Your task to perform on an android device: turn notification dots off Image 0: 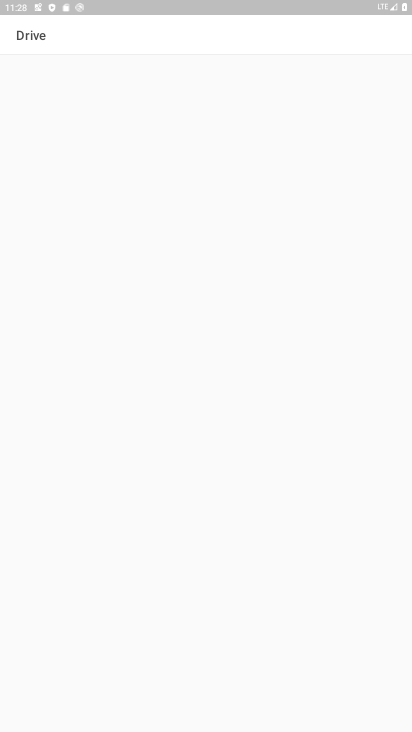
Step 0: press home button
Your task to perform on an android device: turn notification dots off Image 1: 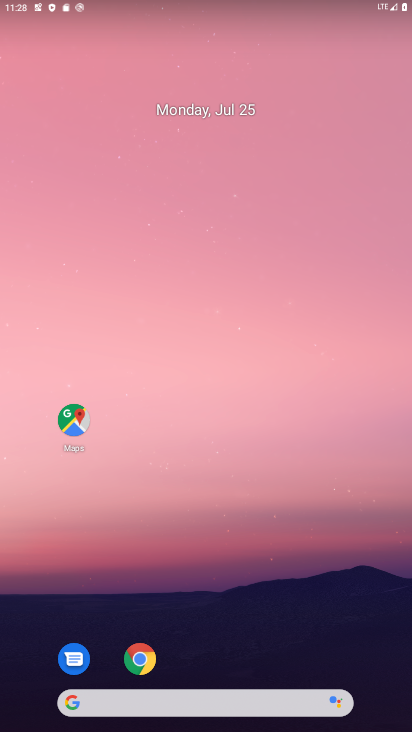
Step 1: drag from (225, 650) to (158, 156)
Your task to perform on an android device: turn notification dots off Image 2: 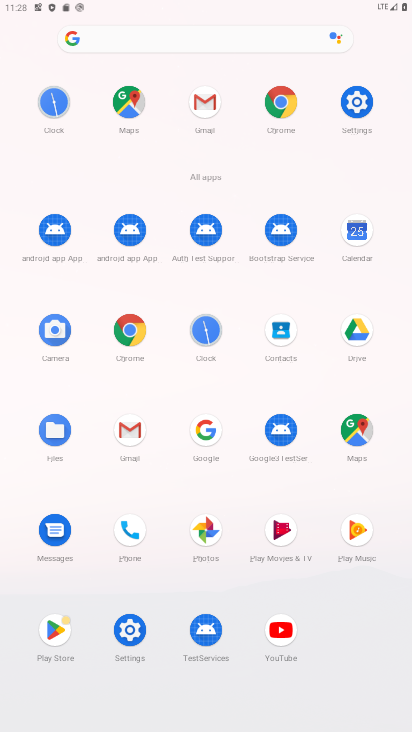
Step 2: click (359, 110)
Your task to perform on an android device: turn notification dots off Image 3: 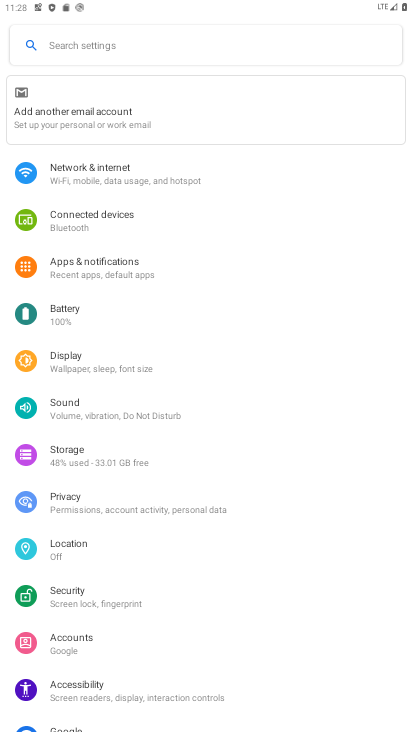
Step 3: click (163, 266)
Your task to perform on an android device: turn notification dots off Image 4: 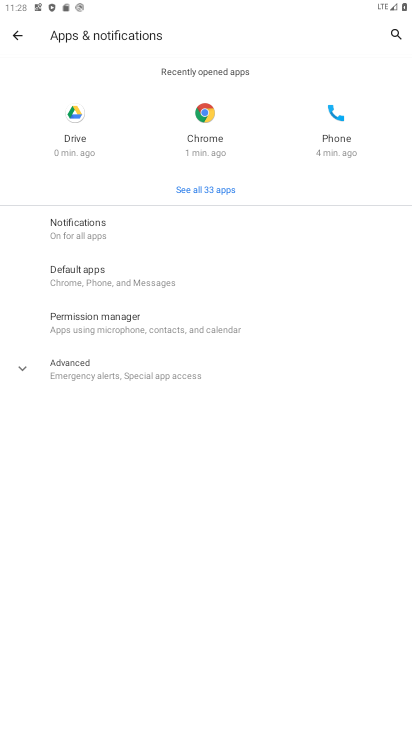
Step 4: click (128, 228)
Your task to perform on an android device: turn notification dots off Image 5: 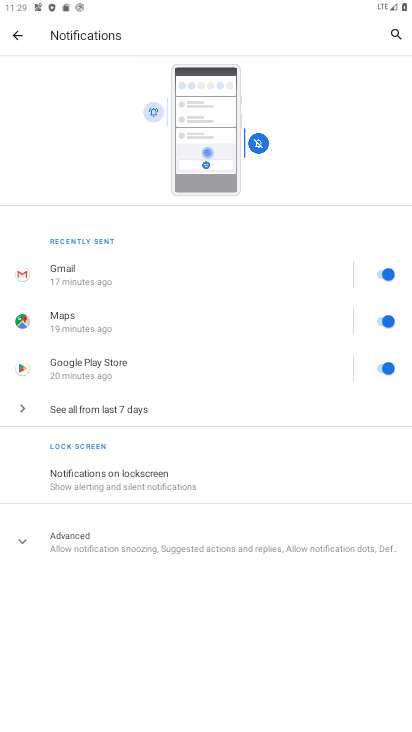
Step 5: click (177, 542)
Your task to perform on an android device: turn notification dots off Image 6: 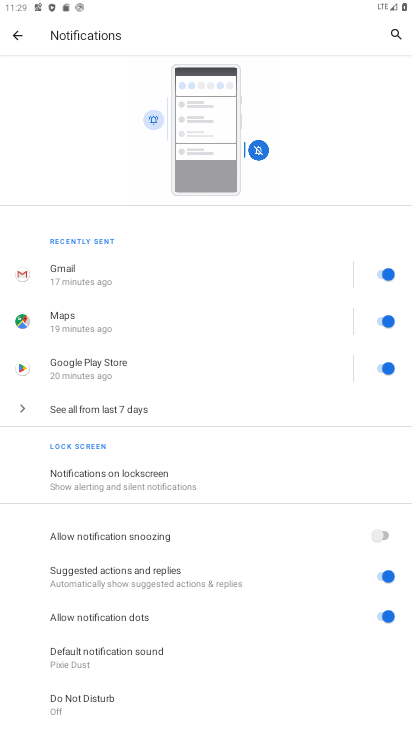
Step 6: drag from (235, 597) to (199, 285)
Your task to perform on an android device: turn notification dots off Image 7: 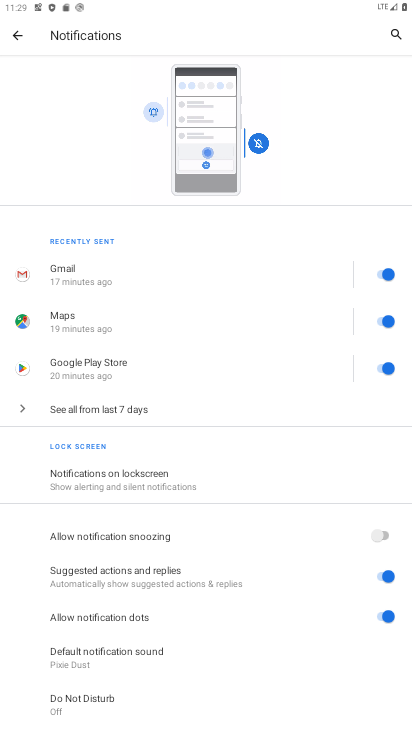
Step 7: click (395, 619)
Your task to perform on an android device: turn notification dots off Image 8: 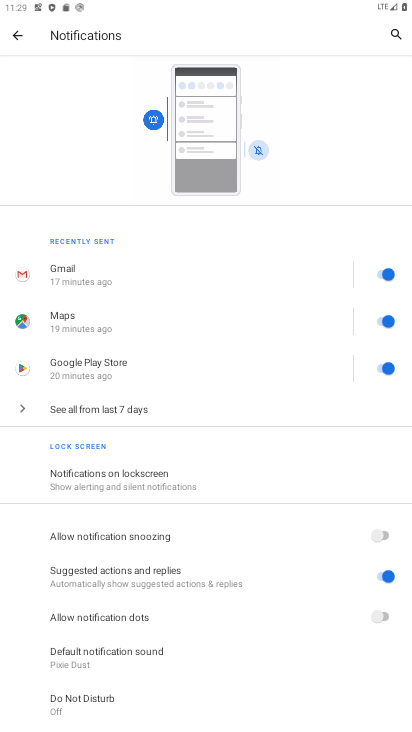
Step 8: task complete